Your task to perform on an android device: Go to Wikipedia Image 0: 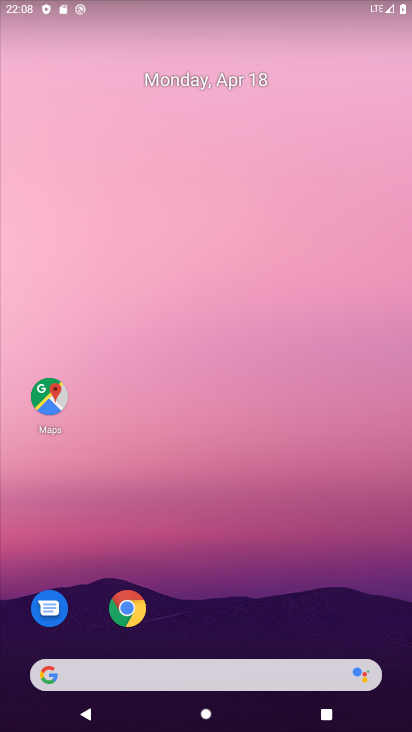
Step 0: click (133, 612)
Your task to perform on an android device: Go to Wikipedia Image 1: 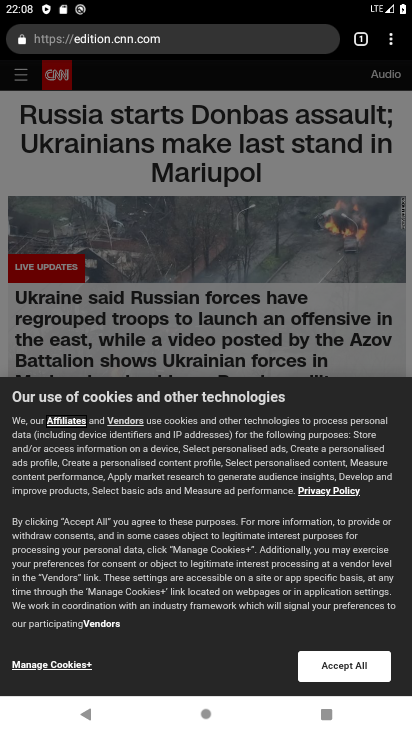
Step 1: click (360, 41)
Your task to perform on an android device: Go to Wikipedia Image 2: 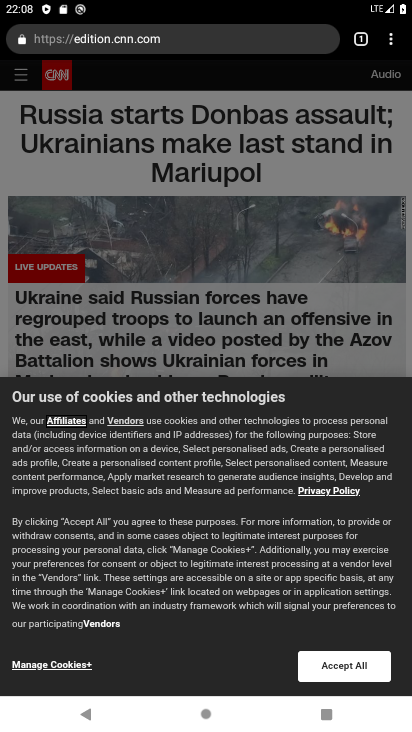
Step 2: click (359, 39)
Your task to perform on an android device: Go to Wikipedia Image 3: 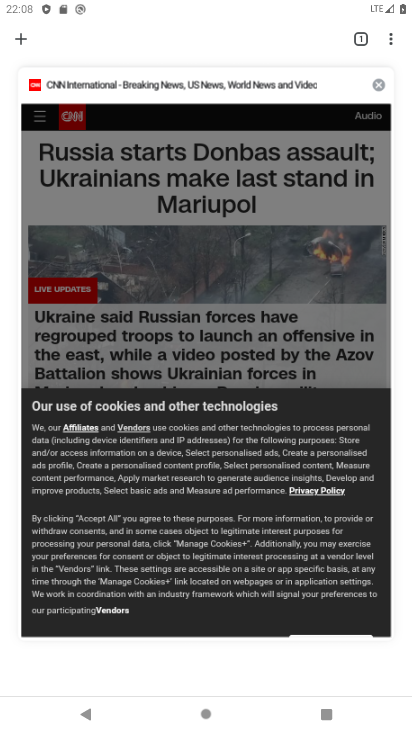
Step 3: click (19, 33)
Your task to perform on an android device: Go to Wikipedia Image 4: 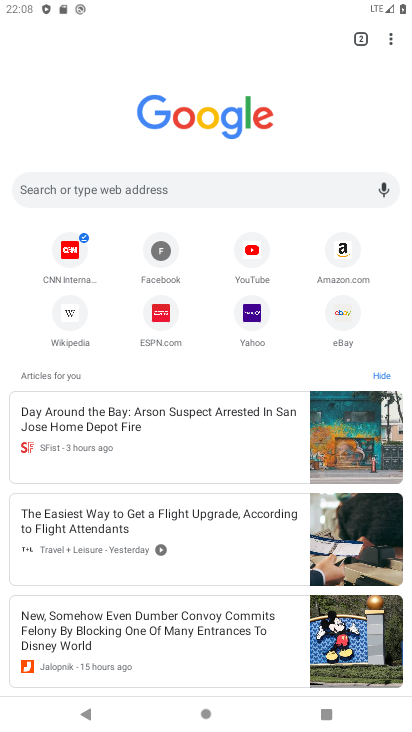
Step 4: click (66, 314)
Your task to perform on an android device: Go to Wikipedia Image 5: 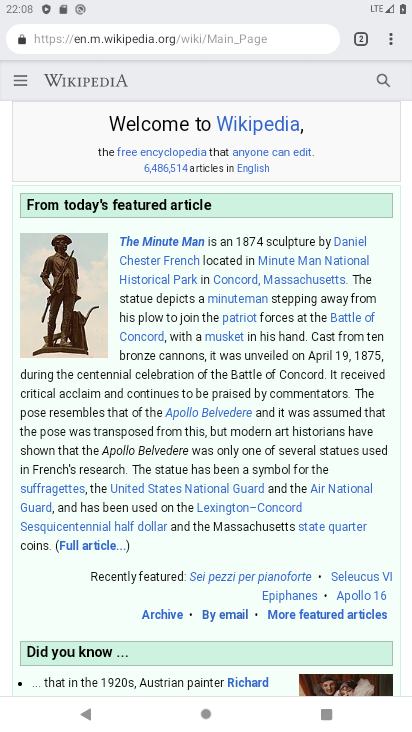
Step 5: task complete